Your task to perform on an android device: Clear the cart on newegg.com. Search for "razer huntsman" on newegg.com, select the first entry, add it to the cart, then select checkout. Image 0: 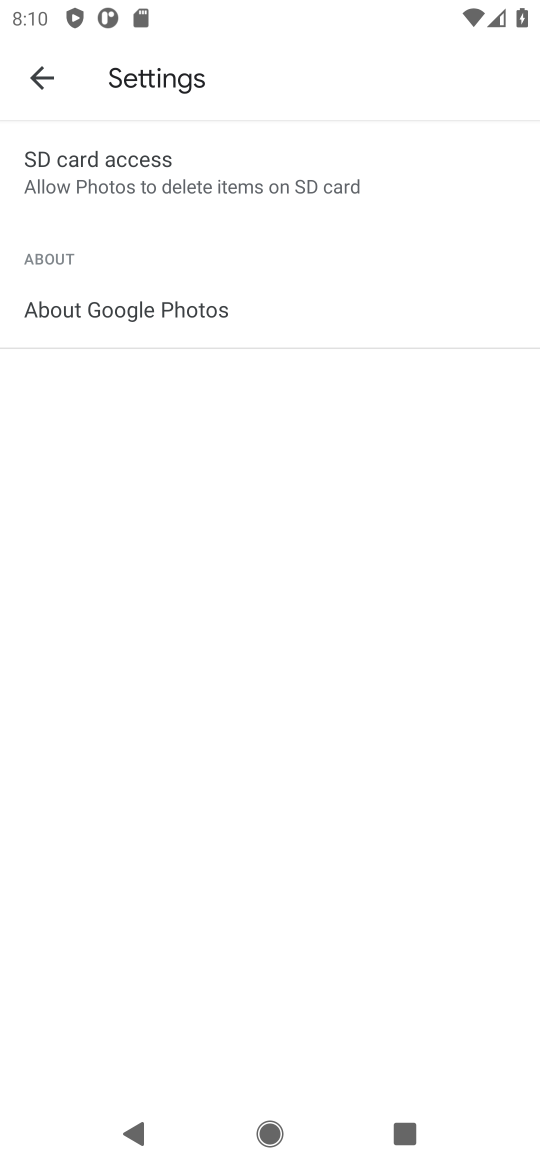
Step 0: press home button
Your task to perform on an android device: Clear the cart on newegg.com. Search for "razer huntsman" on newegg.com, select the first entry, add it to the cart, then select checkout. Image 1: 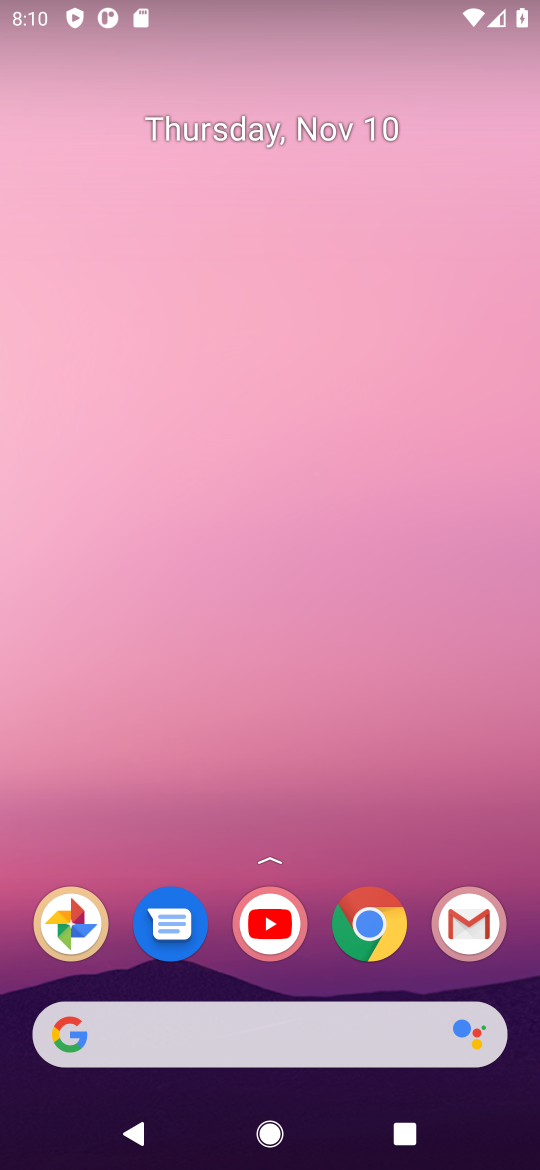
Step 1: click (372, 927)
Your task to perform on an android device: Clear the cart on newegg.com. Search for "razer huntsman" on newegg.com, select the first entry, add it to the cart, then select checkout. Image 2: 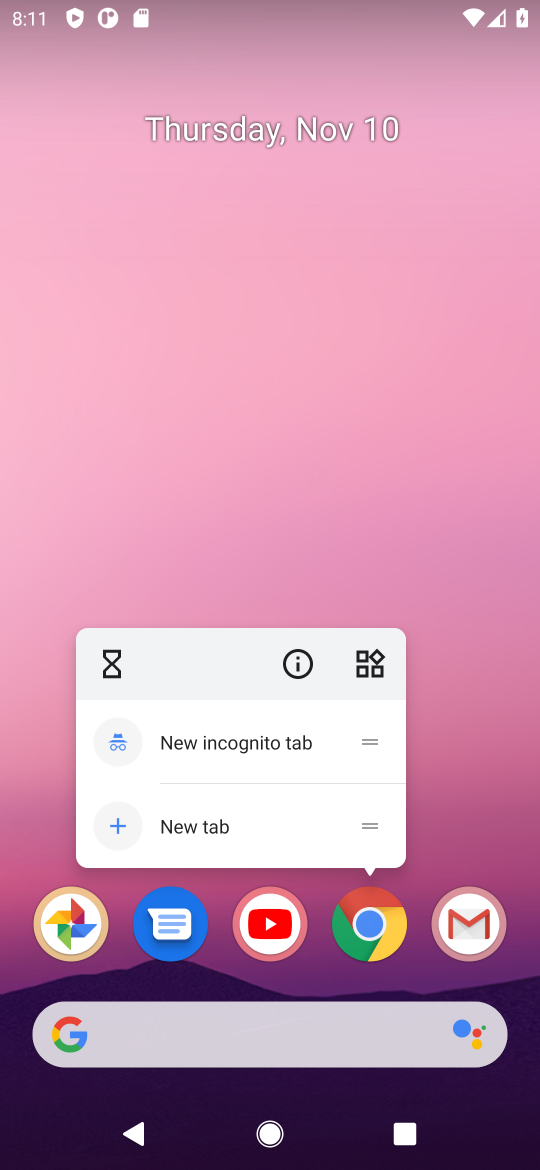
Step 2: click (372, 927)
Your task to perform on an android device: Clear the cart on newegg.com. Search for "razer huntsman" on newegg.com, select the first entry, add it to the cart, then select checkout. Image 3: 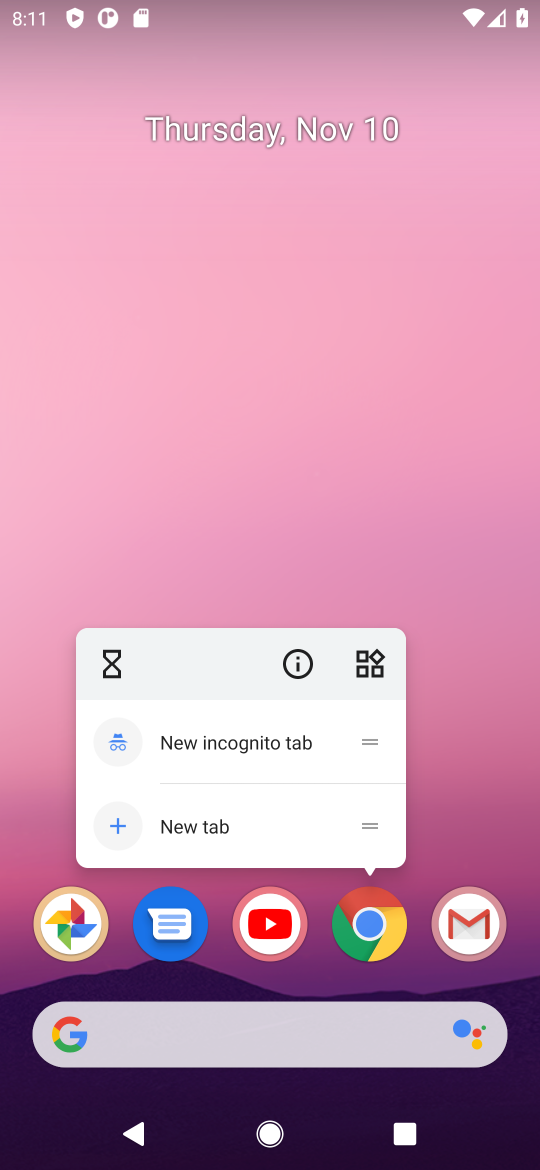
Step 3: click (372, 927)
Your task to perform on an android device: Clear the cart on newegg.com. Search for "razer huntsman" on newegg.com, select the first entry, add it to the cart, then select checkout. Image 4: 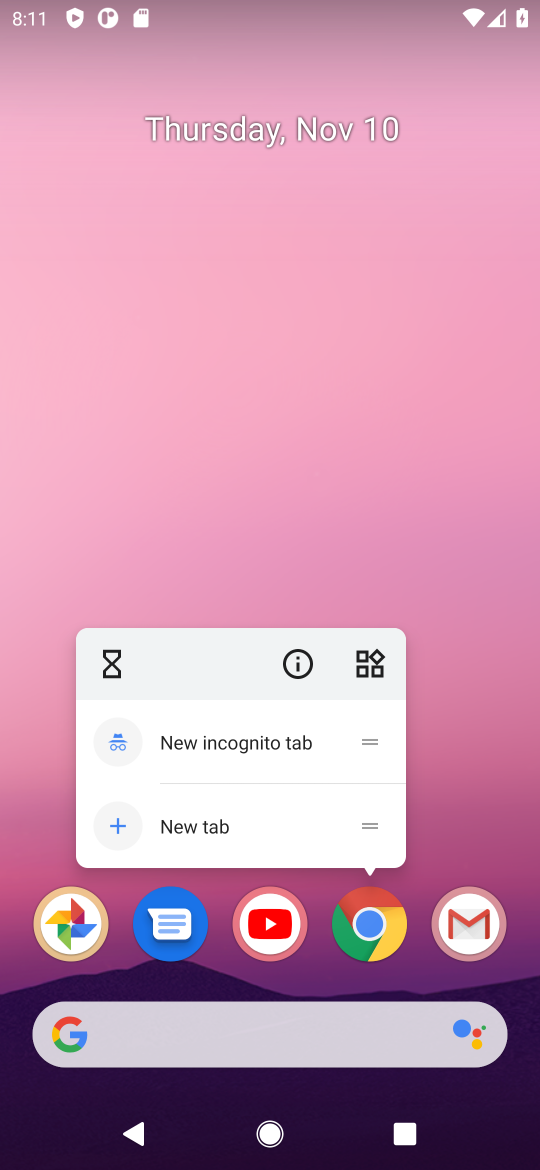
Step 4: click (372, 927)
Your task to perform on an android device: Clear the cart on newegg.com. Search for "razer huntsman" on newegg.com, select the first entry, add it to the cart, then select checkout. Image 5: 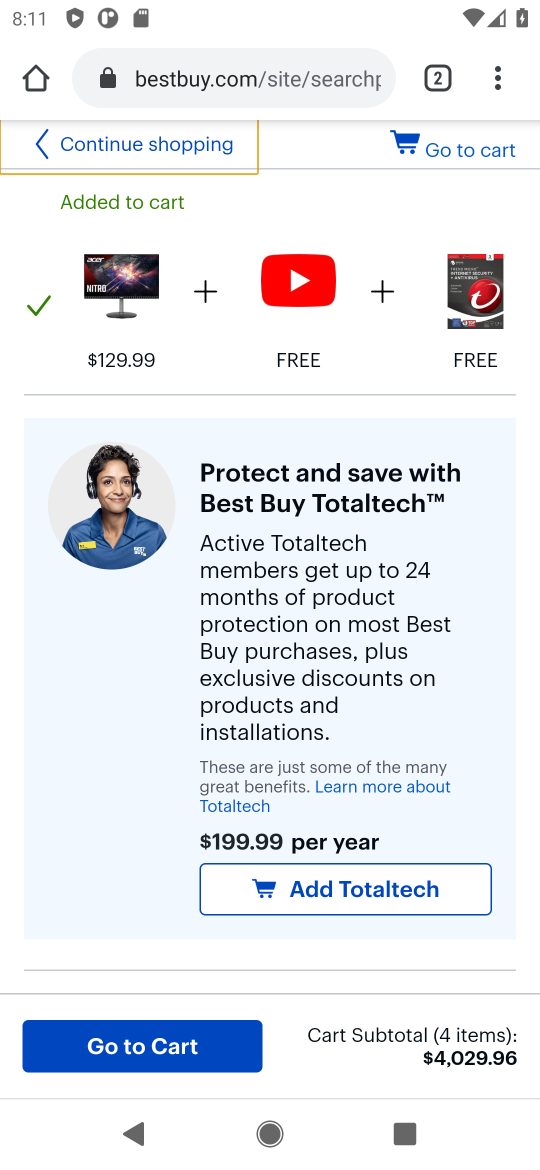
Step 5: click (211, 78)
Your task to perform on an android device: Clear the cart on newegg.com. Search for "razer huntsman" on newegg.com, select the first entry, add it to the cart, then select checkout. Image 6: 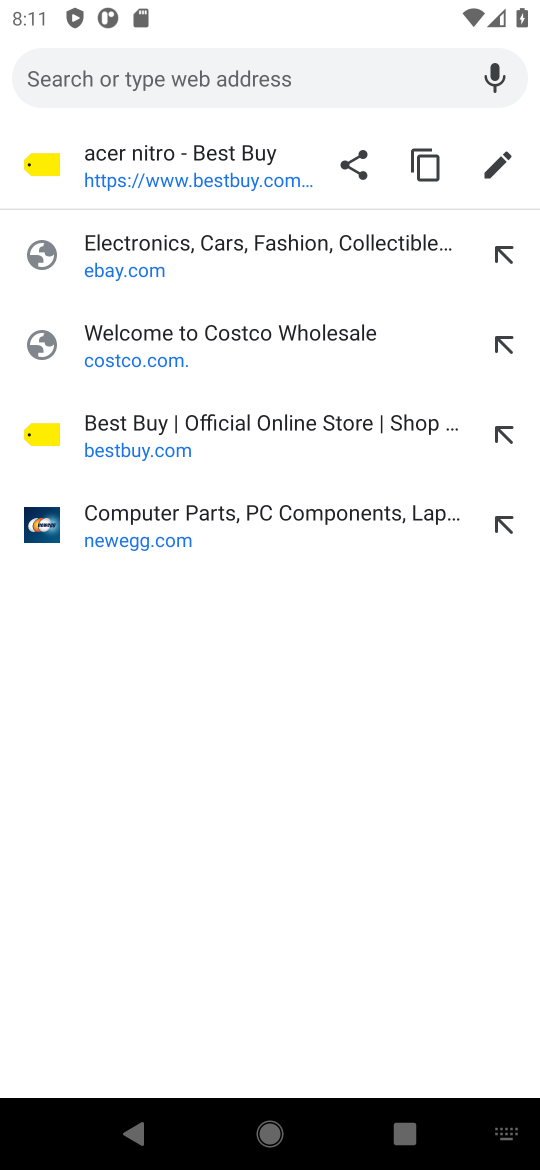
Step 6: click (130, 523)
Your task to perform on an android device: Clear the cart on newegg.com. Search for "razer huntsman" on newegg.com, select the first entry, add it to the cart, then select checkout. Image 7: 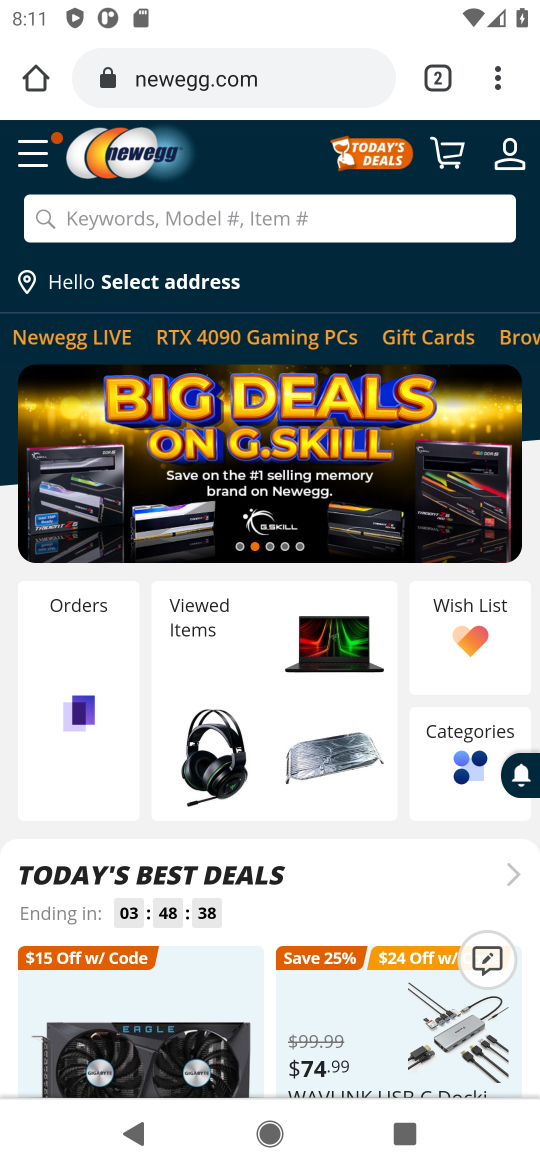
Step 7: click (447, 156)
Your task to perform on an android device: Clear the cart on newegg.com. Search for "razer huntsman" on newegg.com, select the first entry, add it to the cart, then select checkout. Image 8: 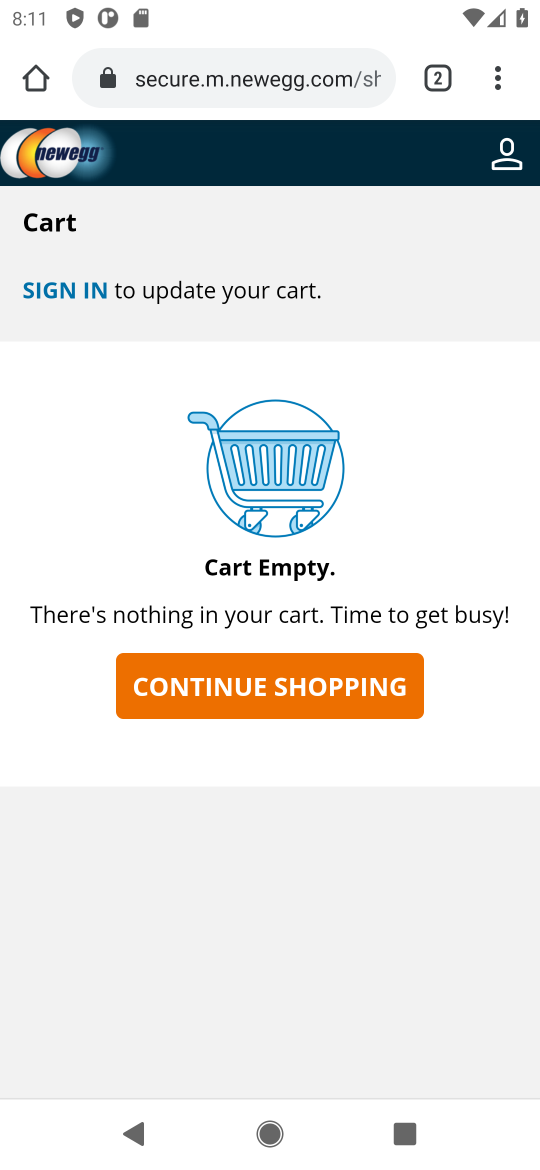
Step 8: click (345, 698)
Your task to perform on an android device: Clear the cart on newegg.com. Search for "razer huntsman" on newegg.com, select the first entry, add it to the cart, then select checkout. Image 9: 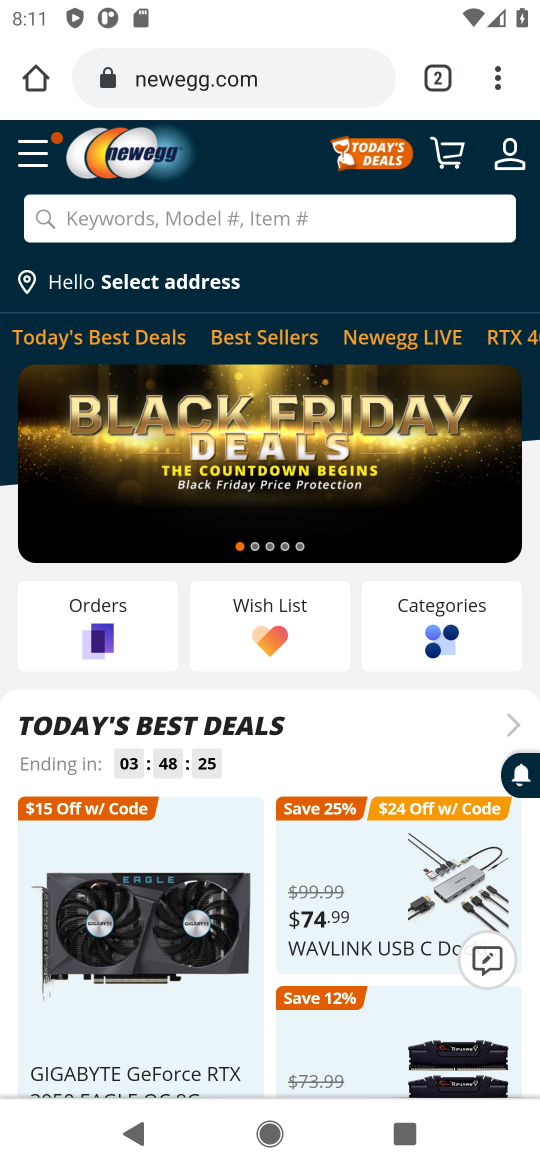
Step 9: click (161, 220)
Your task to perform on an android device: Clear the cart on newegg.com. Search for "razer huntsman" on newegg.com, select the first entry, add it to the cart, then select checkout. Image 10: 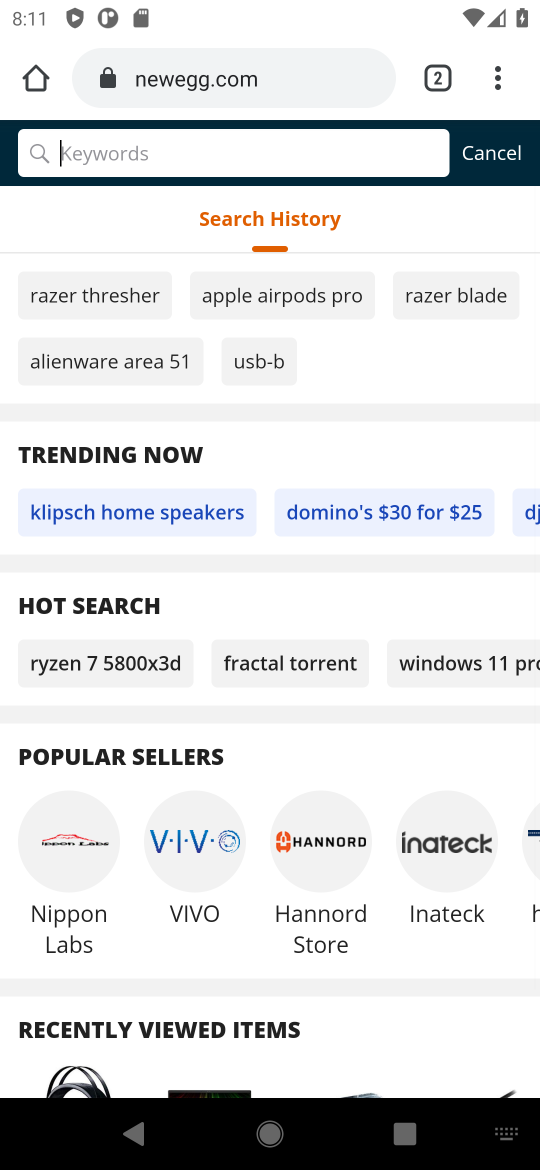
Step 10: type "razer huntsman"
Your task to perform on an android device: Clear the cart on newegg.com. Search for "razer huntsman" on newegg.com, select the first entry, add it to the cart, then select checkout. Image 11: 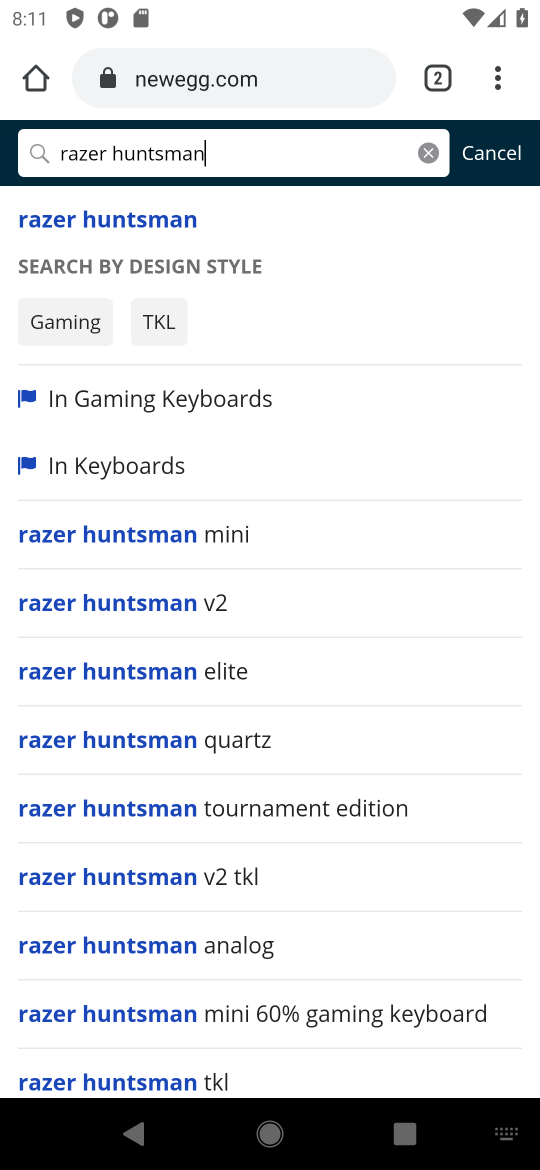
Step 11: click (153, 221)
Your task to perform on an android device: Clear the cart on newegg.com. Search for "razer huntsman" on newegg.com, select the first entry, add it to the cart, then select checkout. Image 12: 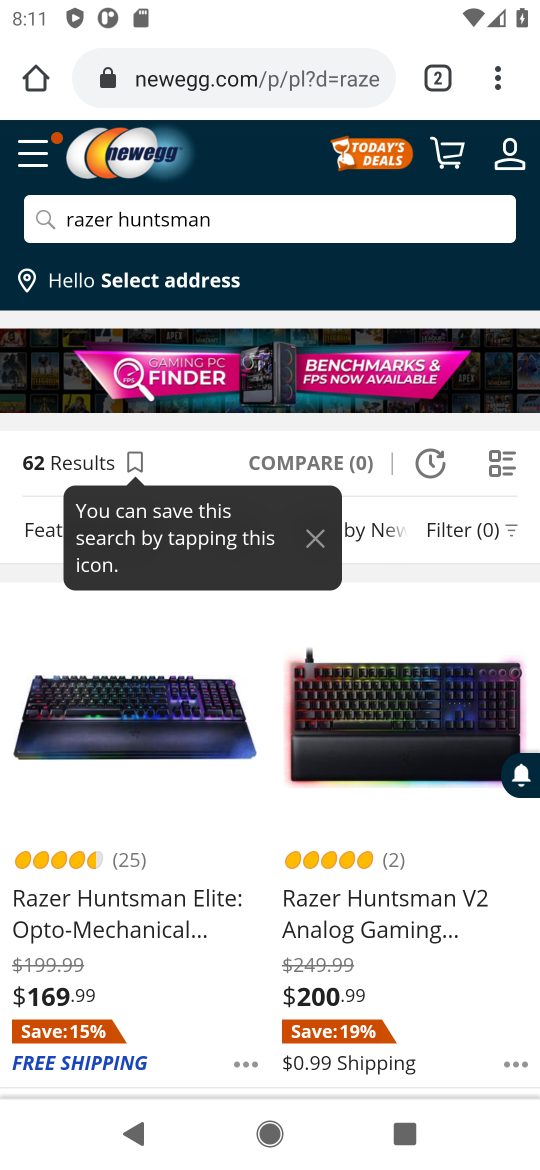
Step 12: click (144, 773)
Your task to perform on an android device: Clear the cart on newegg.com. Search for "razer huntsman" on newegg.com, select the first entry, add it to the cart, then select checkout. Image 13: 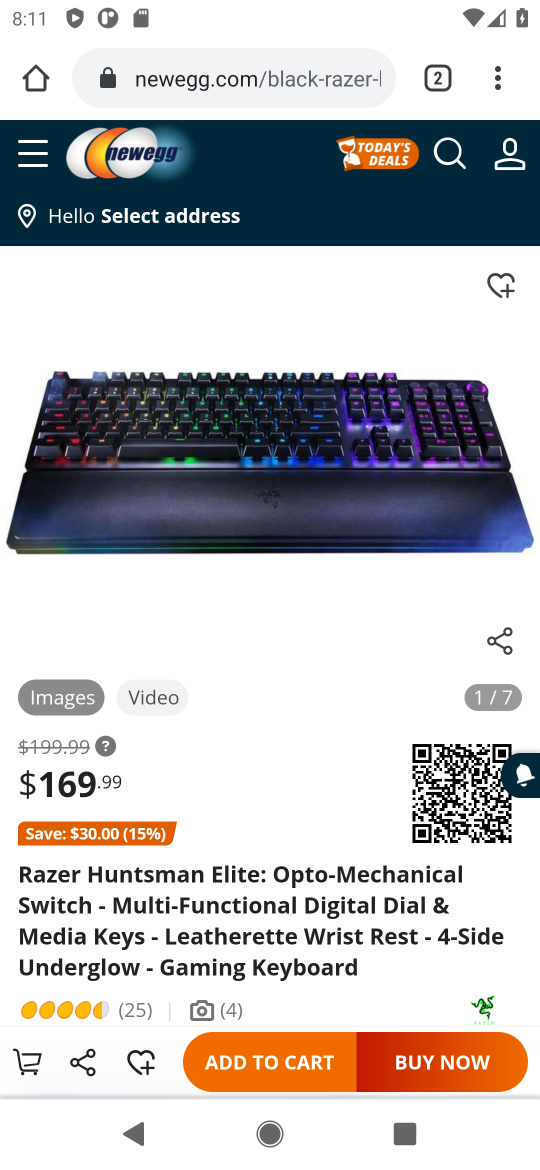
Step 13: click (261, 1049)
Your task to perform on an android device: Clear the cart on newegg.com. Search for "razer huntsman" on newegg.com, select the first entry, add it to the cart, then select checkout. Image 14: 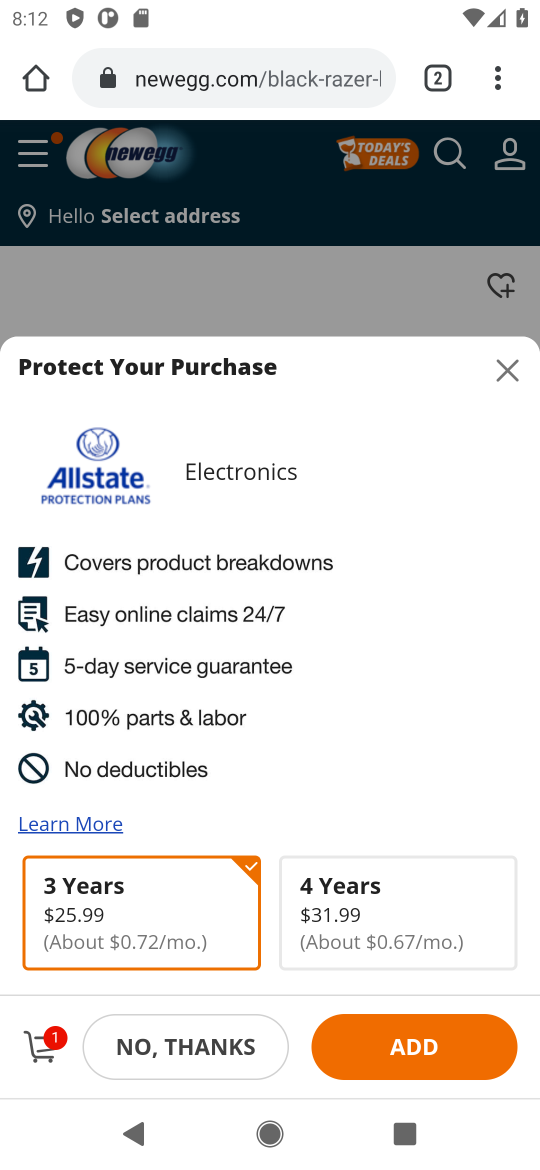
Step 14: click (38, 1049)
Your task to perform on an android device: Clear the cart on newegg.com. Search for "razer huntsman" on newegg.com, select the first entry, add it to the cart, then select checkout. Image 15: 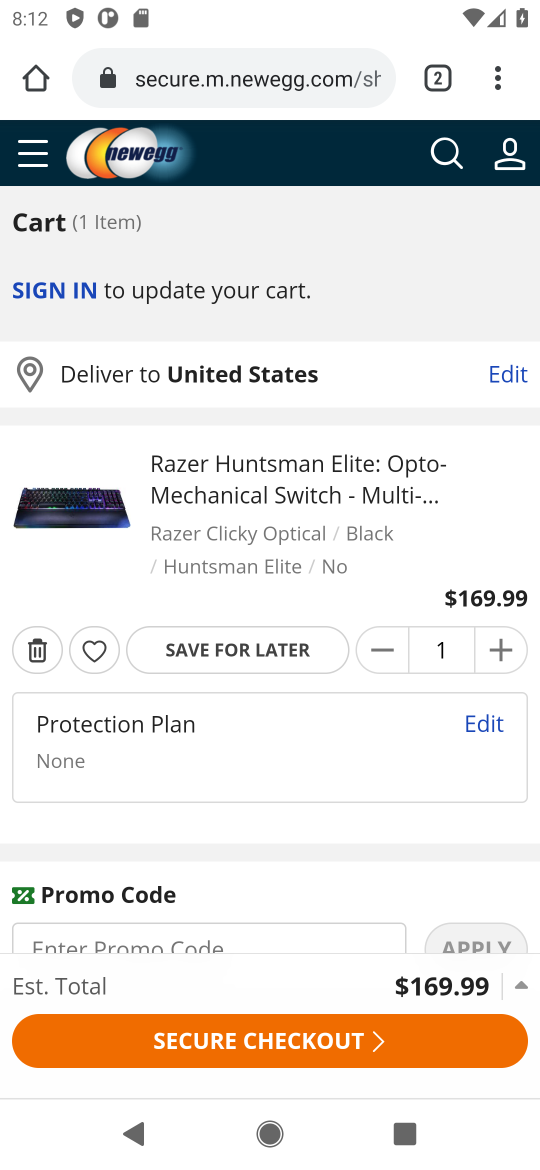
Step 15: click (169, 1036)
Your task to perform on an android device: Clear the cart on newegg.com. Search for "razer huntsman" on newegg.com, select the first entry, add it to the cart, then select checkout. Image 16: 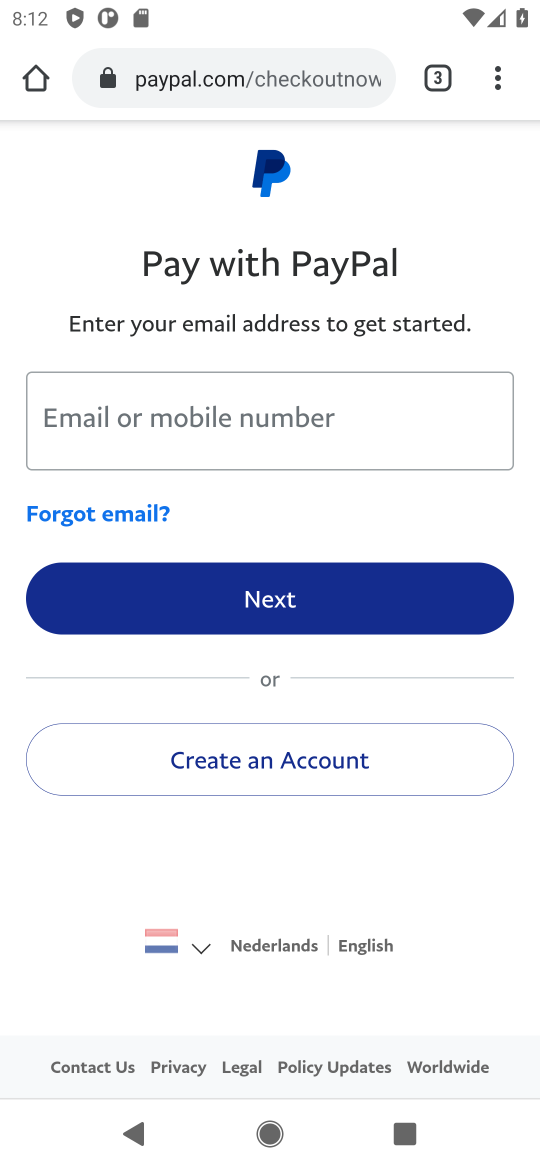
Step 16: task complete